Your task to perform on an android device: When is my next meeting? Image 0: 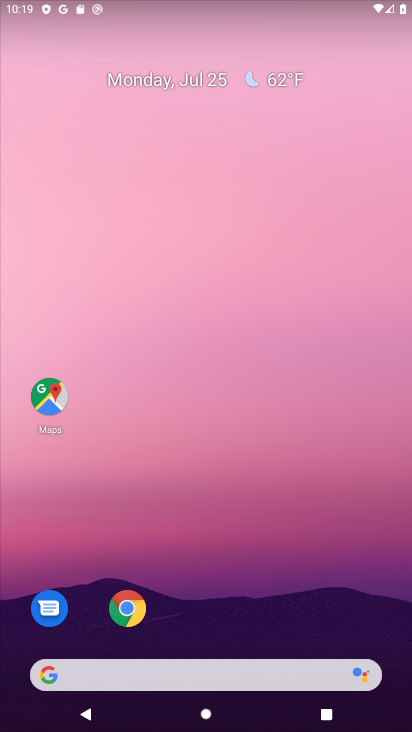
Step 0: drag from (232, 576) to (214, 191)
Your task to perform on an android device: When is my next meeting? Image 1: 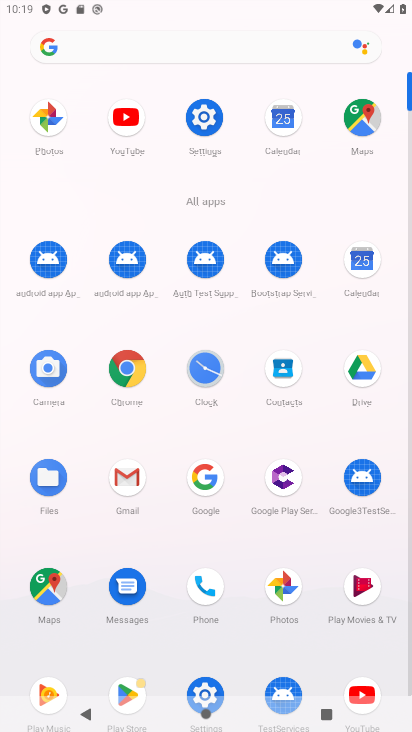
Step 1: click (360, 256)
Your task to perform on an android device: When is my next meeting? Image 2: 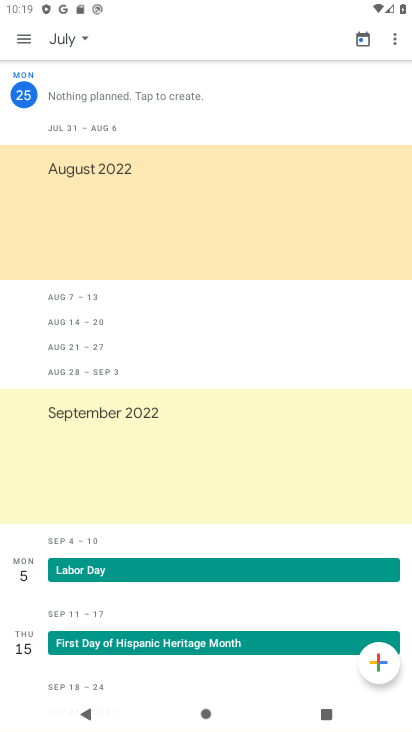
Step 2: task complete